Your task to perform on an android device: toggle javascript in the chrome app Image 0: 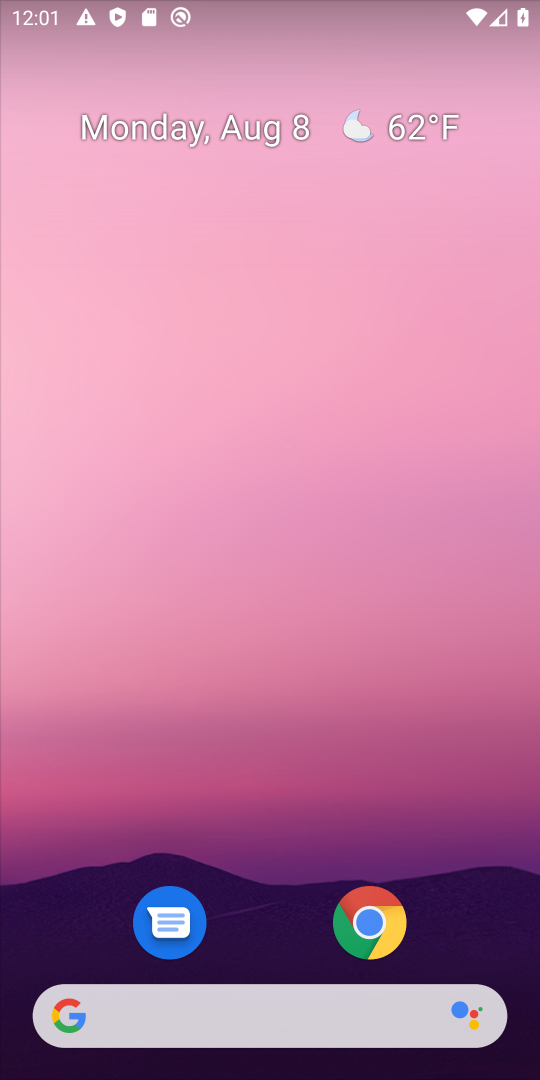
Step 0: click (383, 932)
Your task to perform on an android device: toggle javascript in the chrome app Image 1: 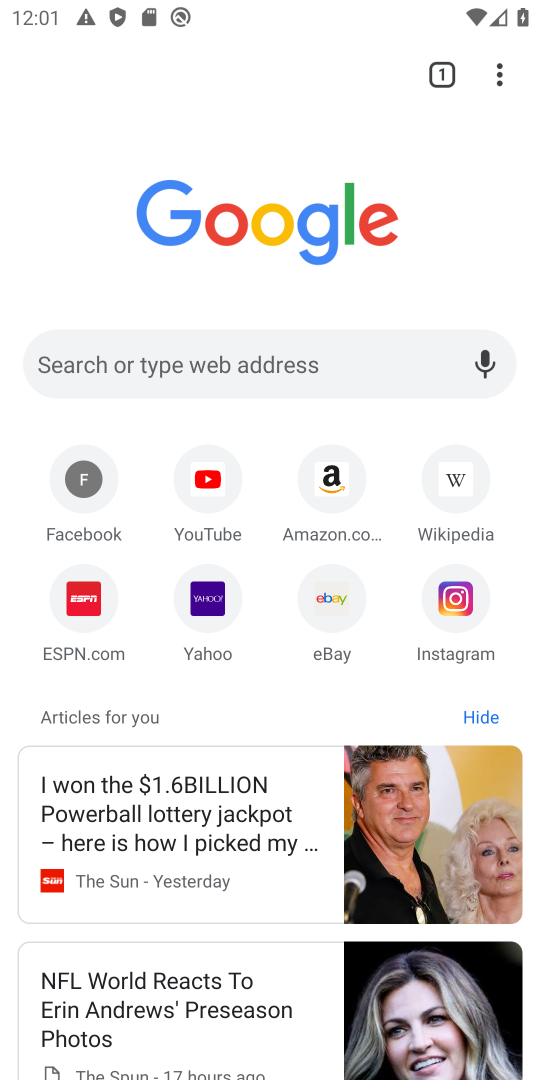
Step 1: click (490, 77)
Your task to perform on an android device: toggle javascript in the chrome app Image 2: 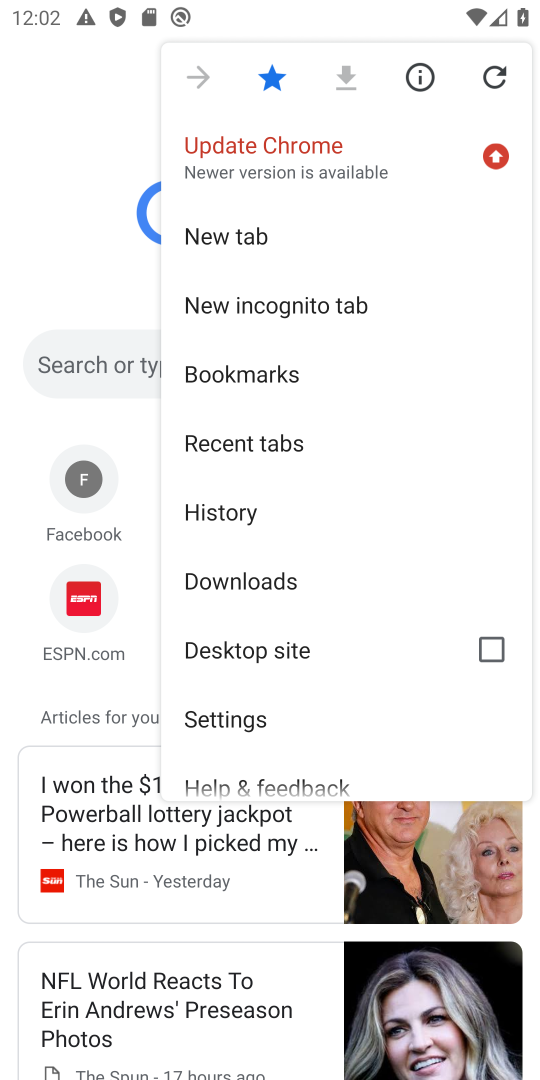
Step 2: click (248, 715)
Your task to perform on an android device: toggle javascript in the chrome app Image 3: 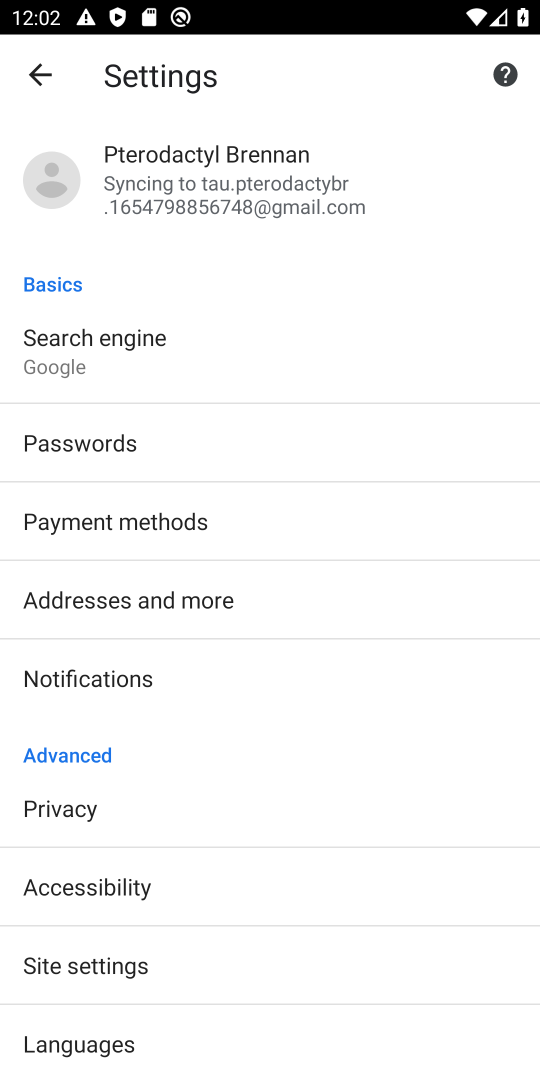
Step 3: click (223, 976)
Your task to perform on an android device: toggle javascript in the chrome app Image 4: 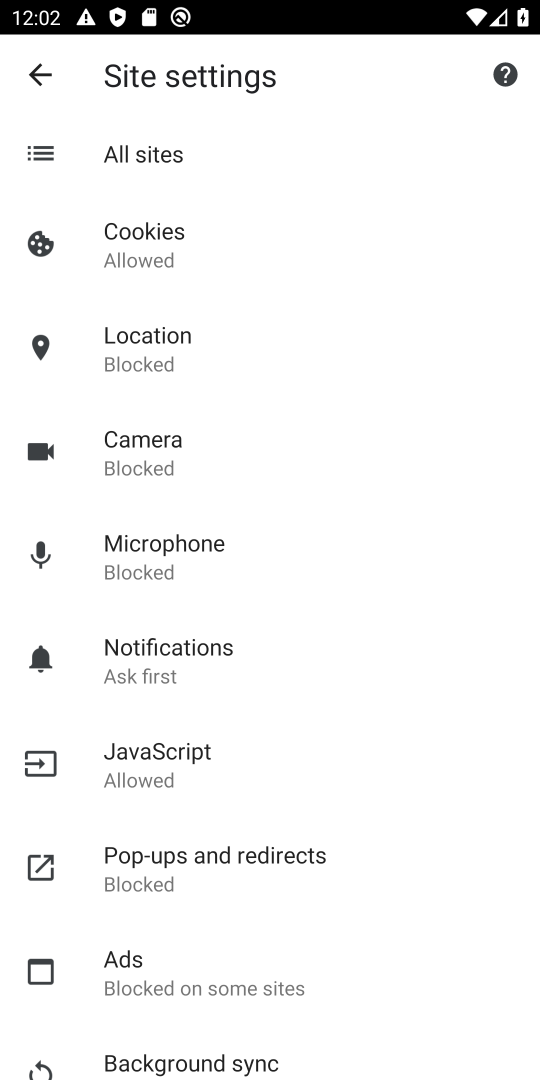
Step 4: click (220, 748)
Your task to perform on an android device: toggle javascript in the chrome app Image 5: 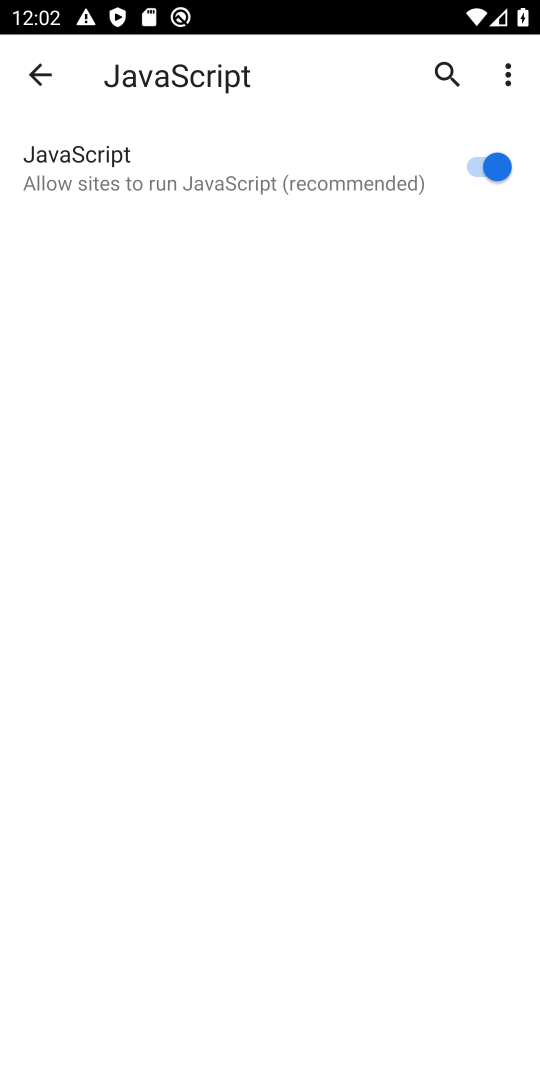
Step 5: click (484, 164)
Your task to perform on an android device: toggle javascript in the chrome app Image 6: 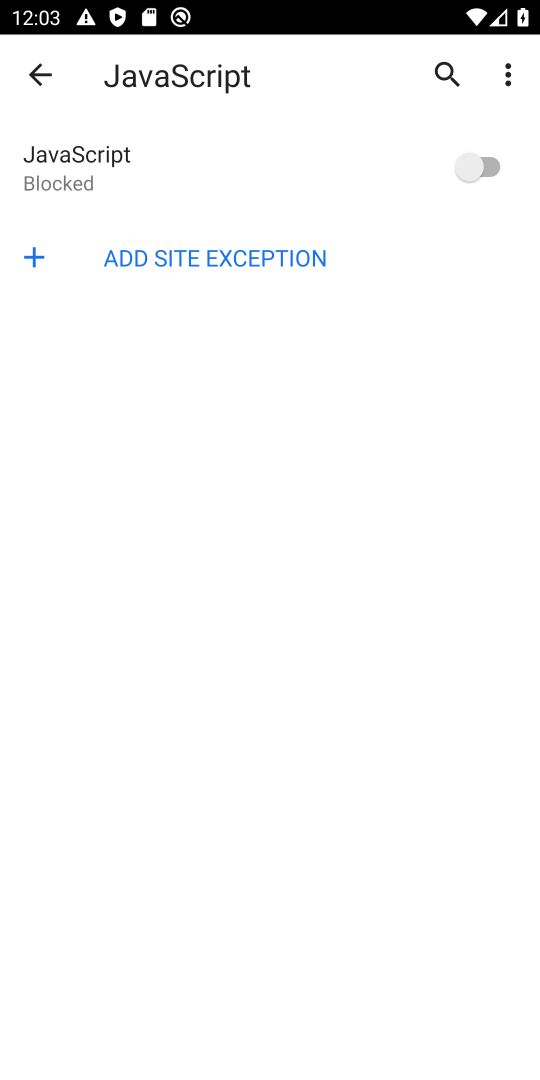
Step 6: task complete